Your task to perform on an android device: Go to battery settings Image 0: 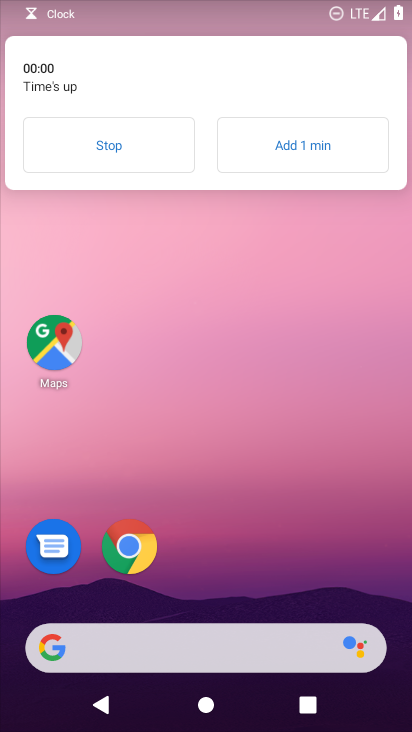
Step 0: drag from (224, 609) to (206, 135)
Your task to perform on an android device: Go to battery settings Image 1: 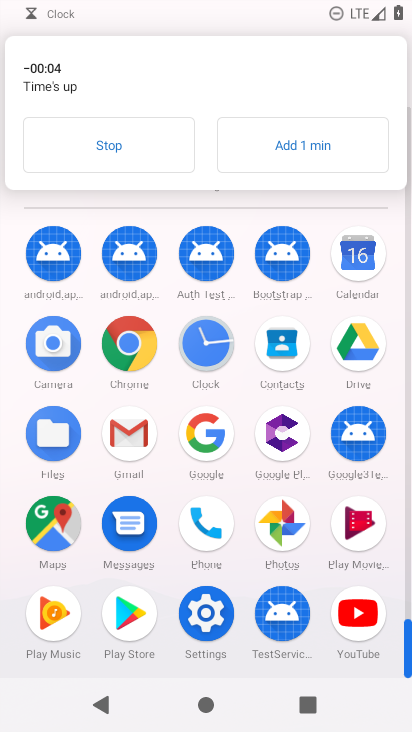
Step 1: click (214, 632)
Your task to perform on an android device: Go to battery settings Image 2: 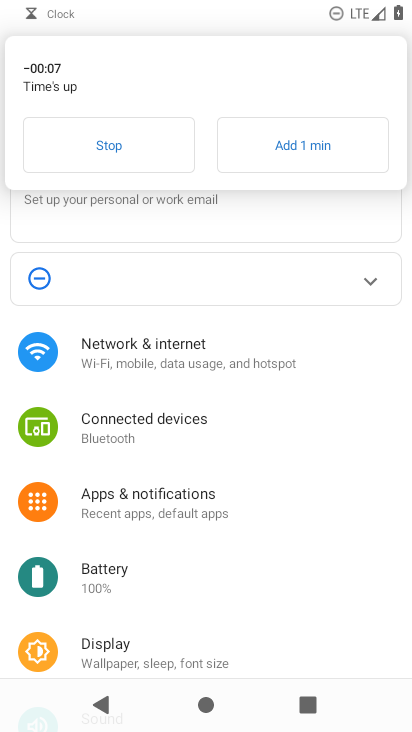
Step 2: click (159, 578)
Your task to perform on an android device: Go to battery settings Image 3: 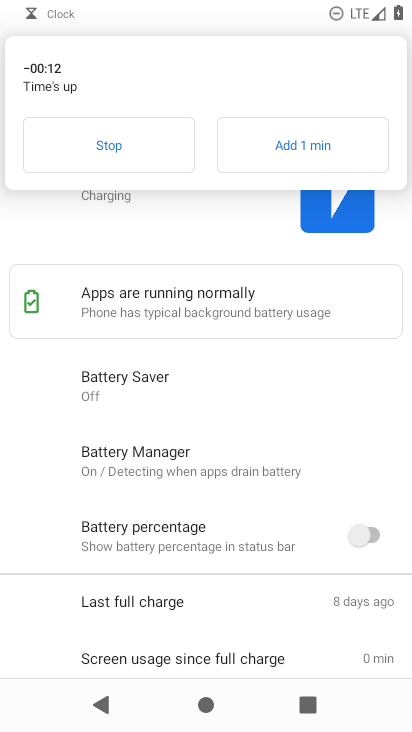
Step 3: task complete